Your task to perform on an android device: turn on the 12-hour format for clock Image 0: 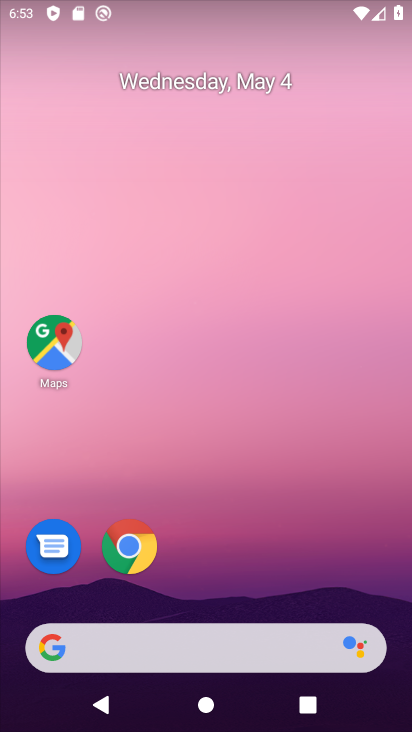
Step 0: drag from (282, 540) to (288, 249)
Your task to perform on an android device: turn on the 12-hour format for clock Image 1: 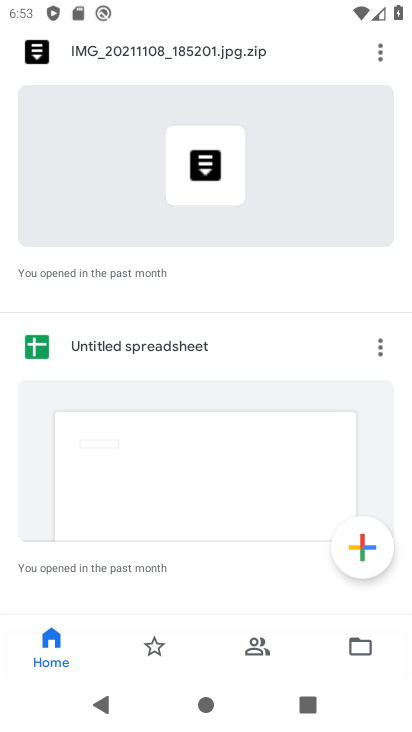
Step 1: press home button
Your task to perform on an android device: turn on the 12-hour format for clock Image 2: 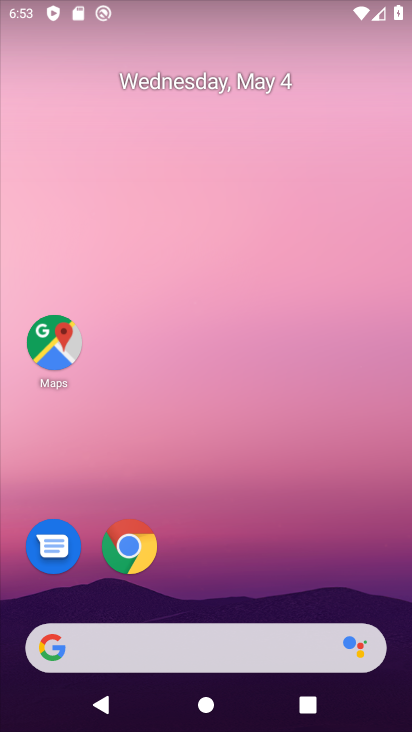
Step 2: drag from (257, 542) to (224, 13)
Your task to perform on an android device: turn on the 12-hour format for clock Image 3: 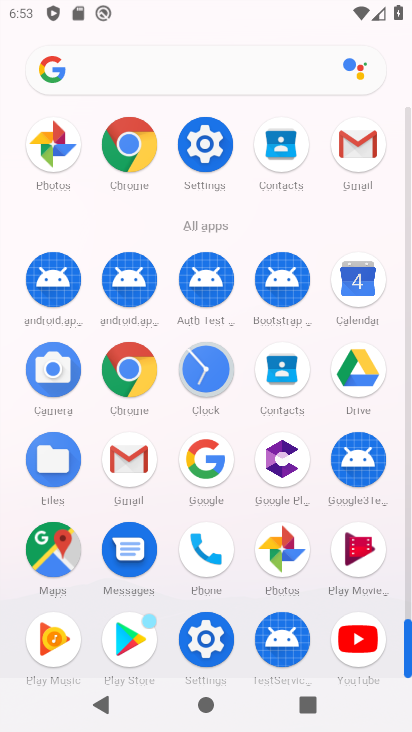
Step 3: click (217, 378)
Your task to perform on an android device: turn on the 12-hour format for clock Image 4: 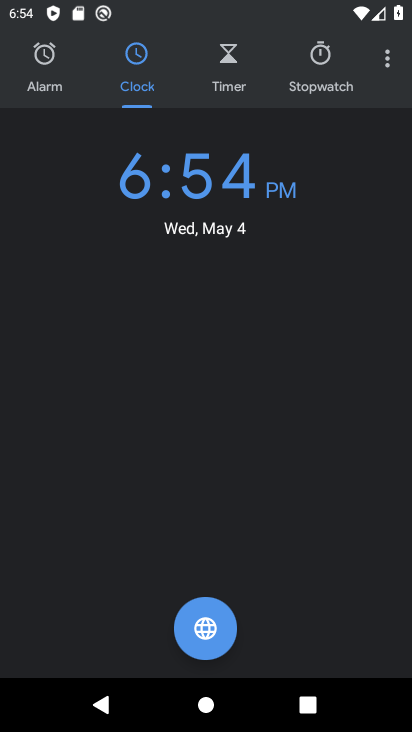
Step 4: click (391, 59)
Your task to perform on an android device: turn on the 12-hour format for clock Image 5: 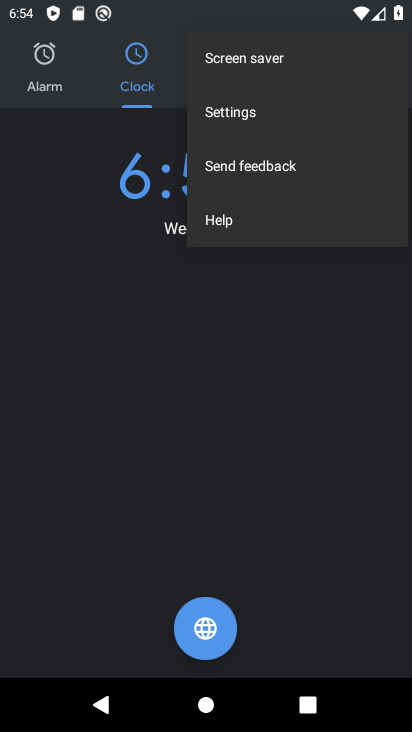
Step 5: click (255, 127)
Your task to perform on an android device: turn on the 12-hour format for clock Image 6: 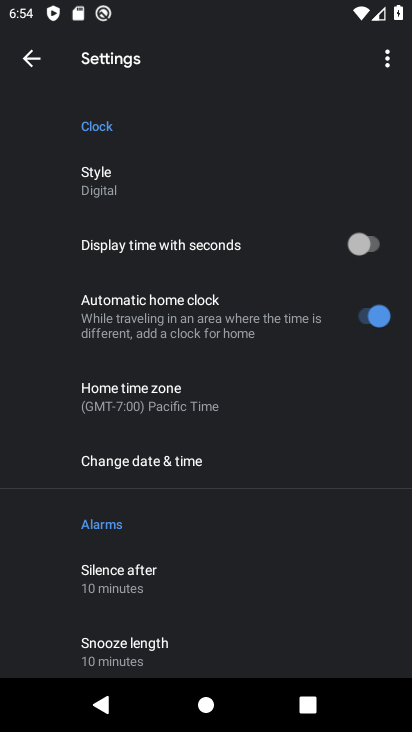
Step 6: click (226, 456)
Your task to perform on an android device: turn on the 12-hour format for clock Image 7: 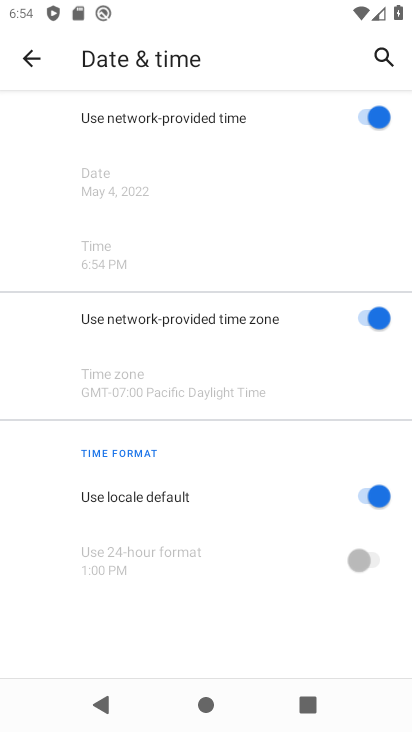
Step 7: click (375, 491)
Your task to perform on an android device: turn on the 12-hour format for clock Image 8: 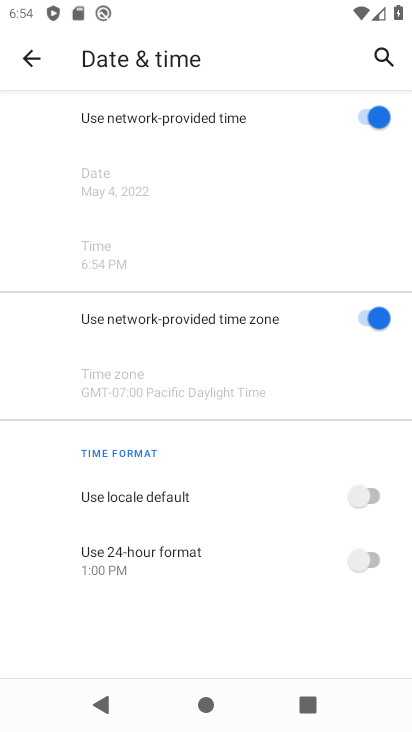
Step 8: task complete